Your task to perform on an android device: turn on wifi Image 0: 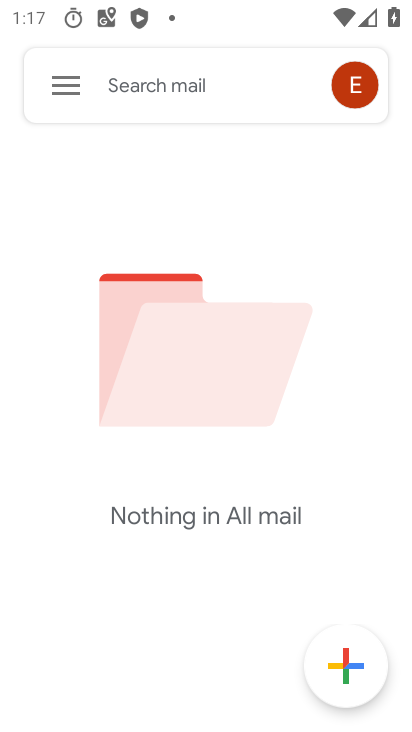
Step 0: press back button
Your task to perform on an android device: turn on wifi Image 1: 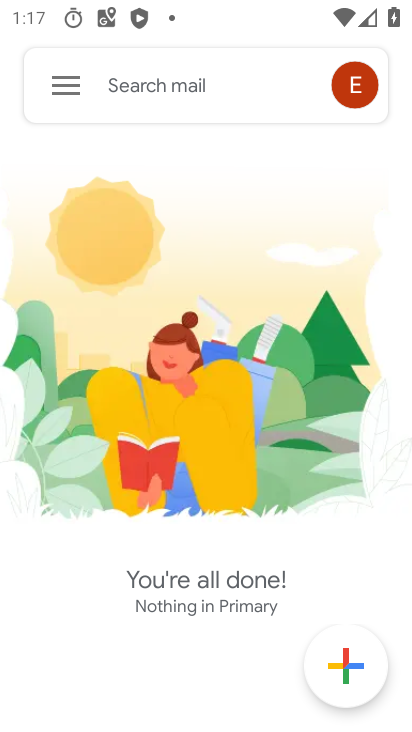
Step 1: task complete